Your task to perform on an android device: Open Google Maps and go to "Timeline" Image 0: 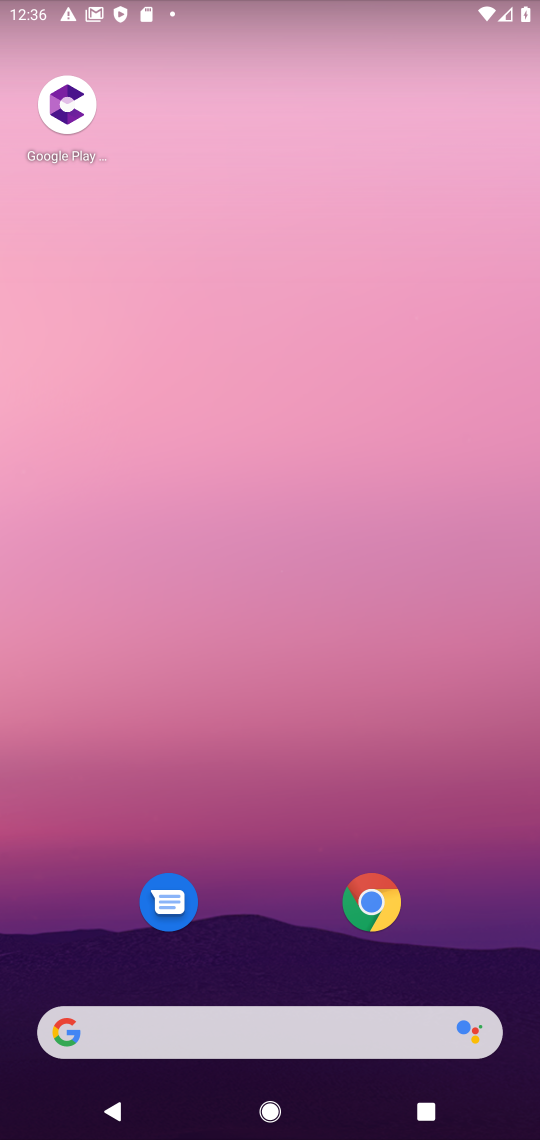
Step 0: drag from (36, 1069) to (247, 143)
Your task to perform on an android device: Open Google Maps and go to "Timeline" Image 1: 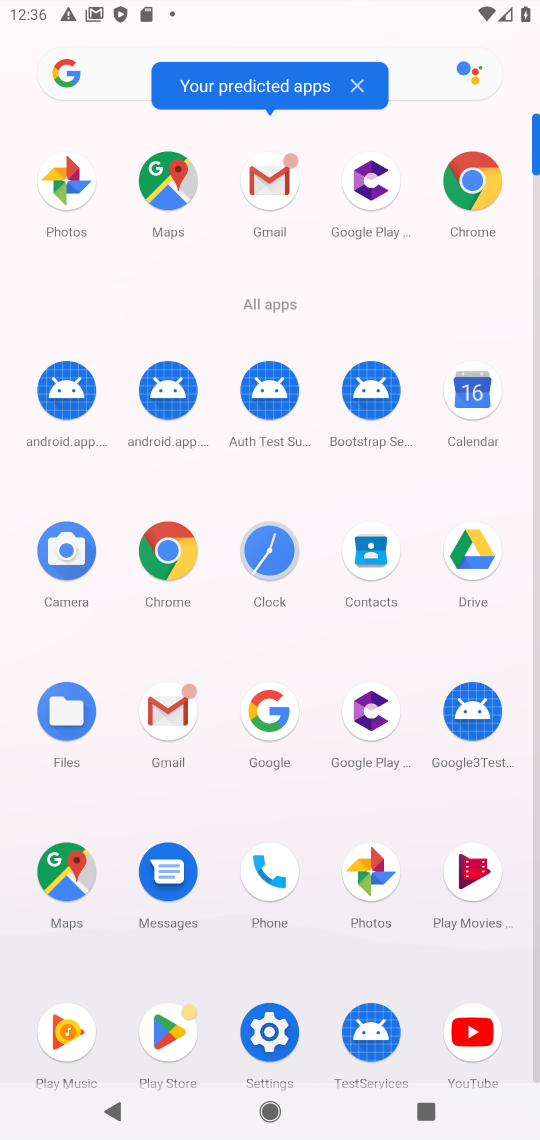
Step 1: click (77, 884)
Your task to perform on an android device: Open Google Maps and go to "Timeline" Image 2: 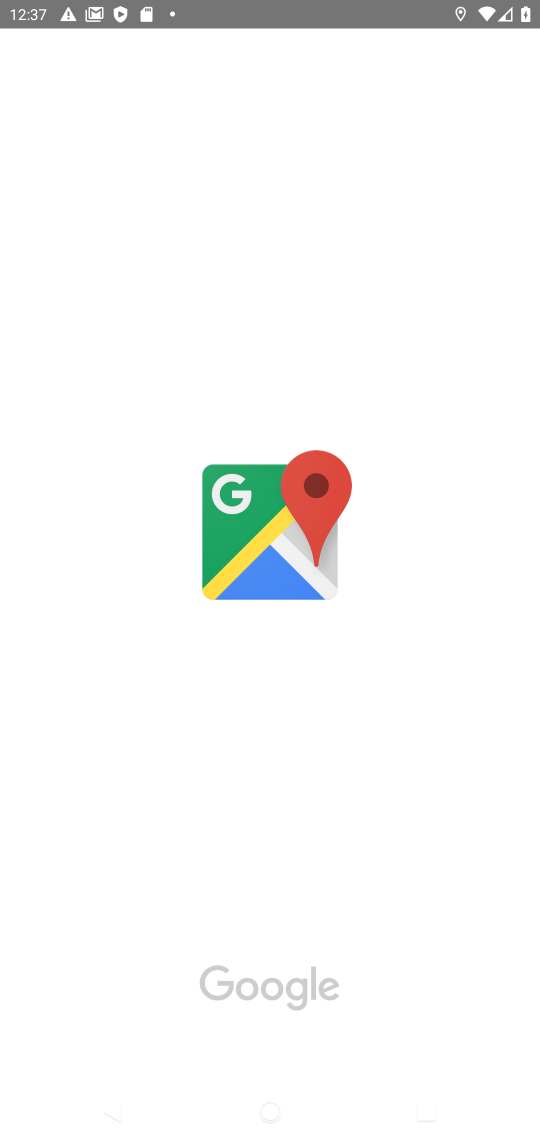
Step 2: task complete